Your task to perform on an android device: Is it going to rain this weekend? Image 0: 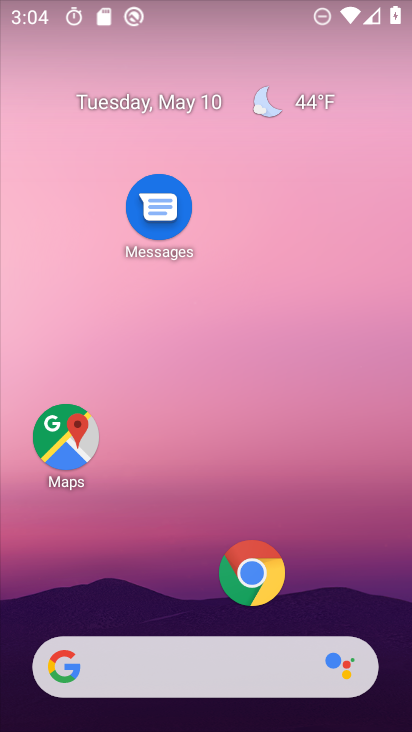
Step 0: drag from (198, 604) to (251, 197)
Your task to perform on an android device: Is it going to rain this weekend? Image 1: 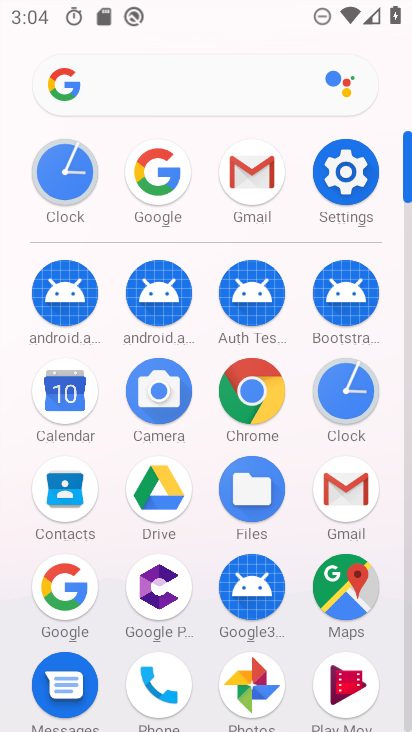
Step 1: click (161, 181)
Your task to perform on an android device: Is it going to rain this weekend? Image 2: 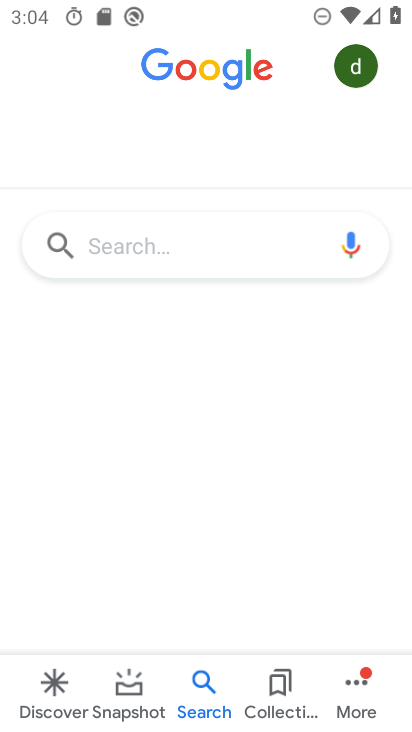
Step 2: click (199, 258)
Your task to perform on an android device: Is it going to rain this weekend? Image 3: 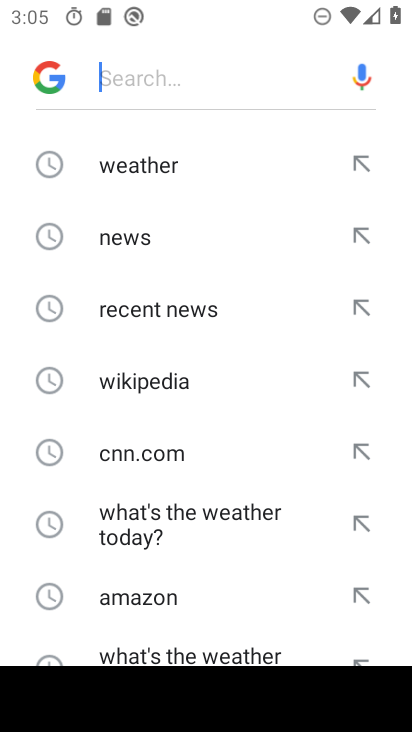
Step 3: click (177, 166)
Your task to perform on an android device: Is it going to rain this weekend? Image 4: 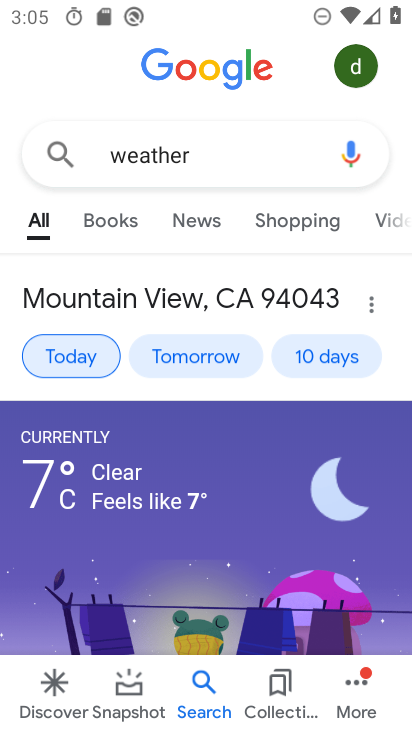
Step 4: click (307, 363)
Your task to perform on an android device: Is it going to rain this weekend? Image 5: 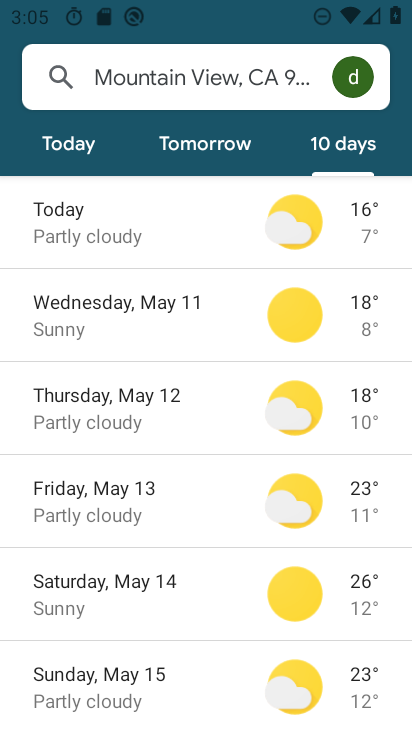
Step 5: drag from (205, 567) to (204, 383)
Your task to perform on an android device: Is it going to rain this weekend? Image 6: 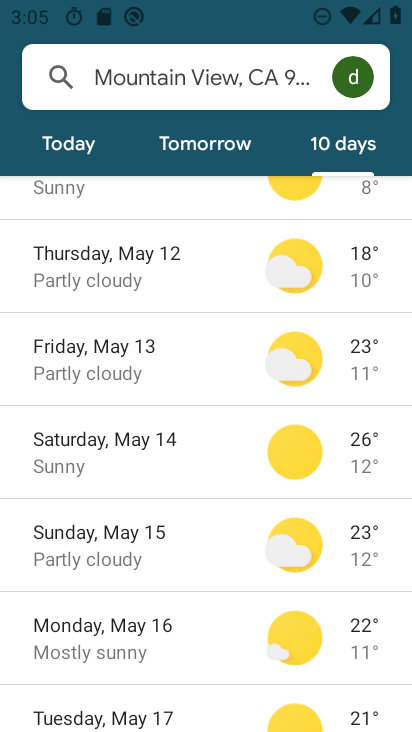
Step 6: click (142, 447)
Your task to perform on an android device: Is it going to rain this weekend? Image 7: 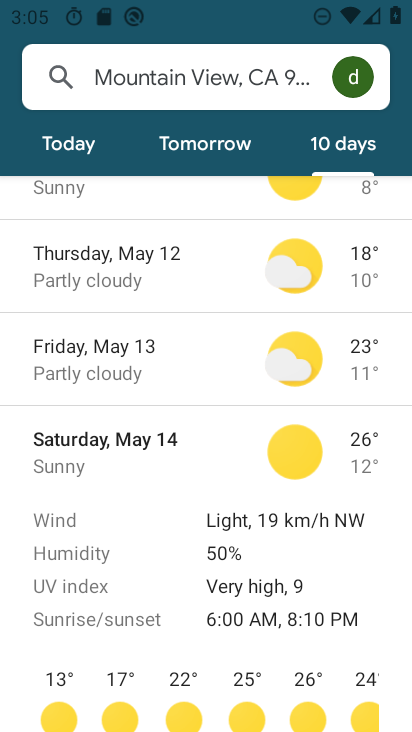
Step 7: drag from (142, 583) to (200, 394)
Your task to perform on an android device: Is it going to rain this weekend? Image 8: 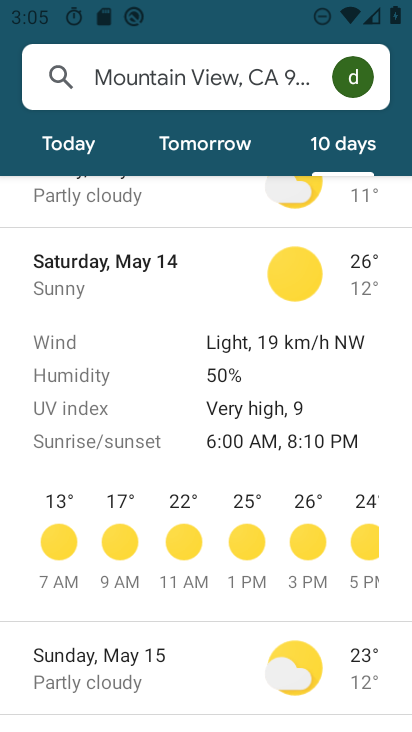
Step 8: click (155, 632)
Your task to perform on an android device: Is it going to rain this weekend? Image 9: 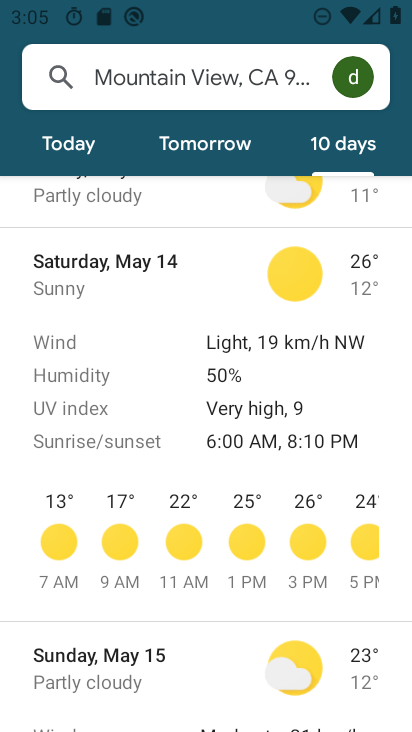
Step 9: drag from (167, 626) to (201, 544)
Your task to perform on an android device: Is it going to rain this weekend? Image 10: 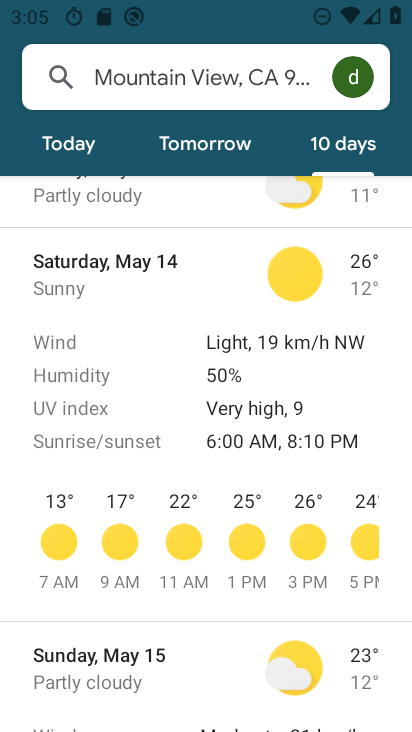
Step 10: click (166, 650)
Your task to perform on an android device: Is it going to rain this weekend? Image 11: 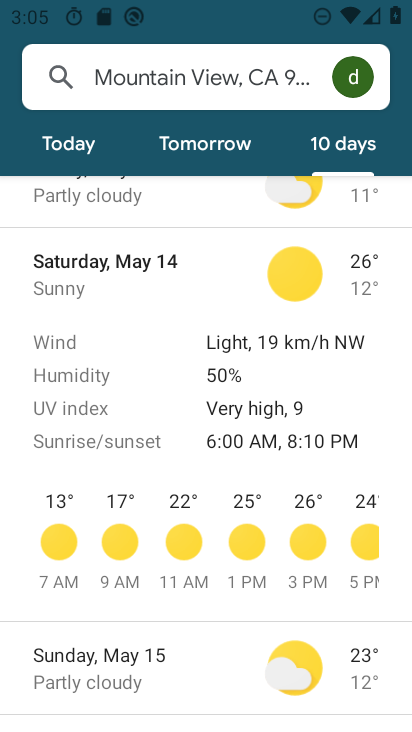
Step 11: task complete